Your task to perform on an android device: Open Google Chrome and open the bookmarks view Image 0: 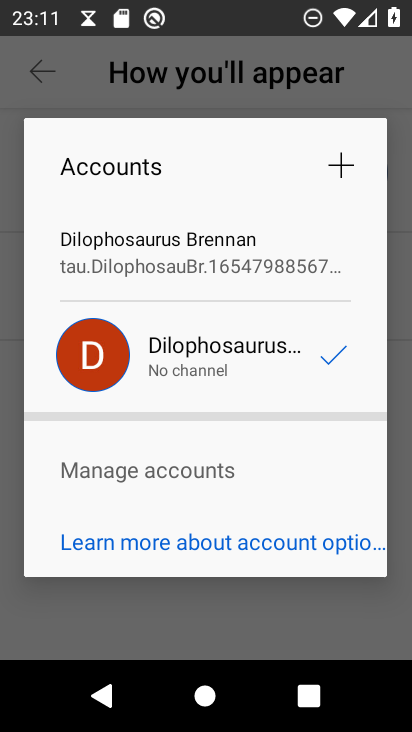
Step 0: press home button
Your task to perform on an android device: Open Google Chrome and open the bookmarks view Image 1: 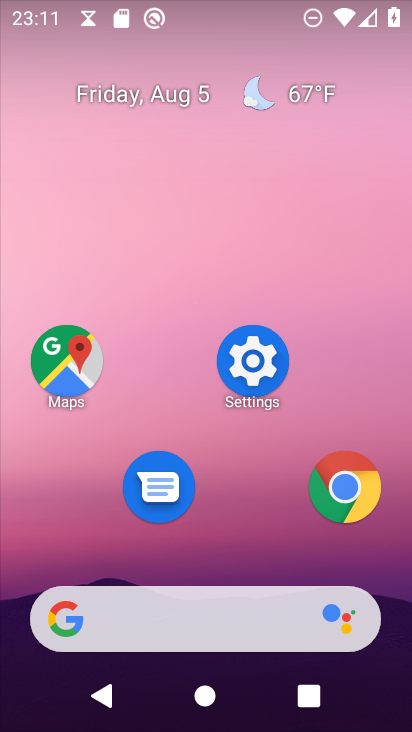
Step 1: click (341, 493)
Your task to perform on an android device: Open Google Chrome and open the bookmarks view Image 2: 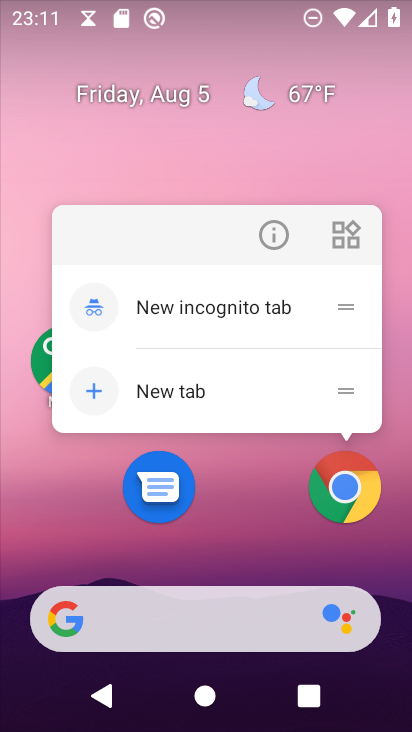
Step 2: click (341, 493)
Your task to perform on an android device: Open Google Chrome and open the bookmarks view Image 3: 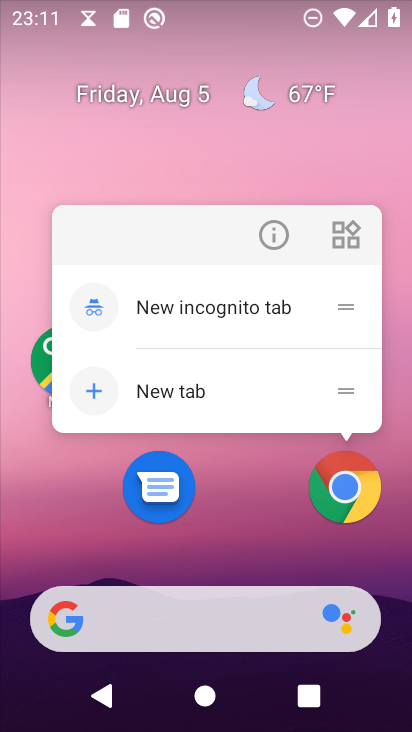
Step 3: click (341, 500)
Your task to perform on an android device: Open Google Chrome and open the bookmarks view Image 4: 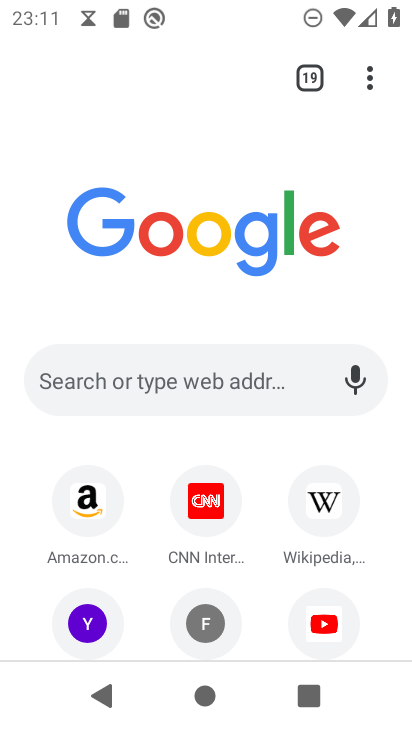
Step 4: task complete